Your task to perform on an android device: Open Yahoo.com Image 0: 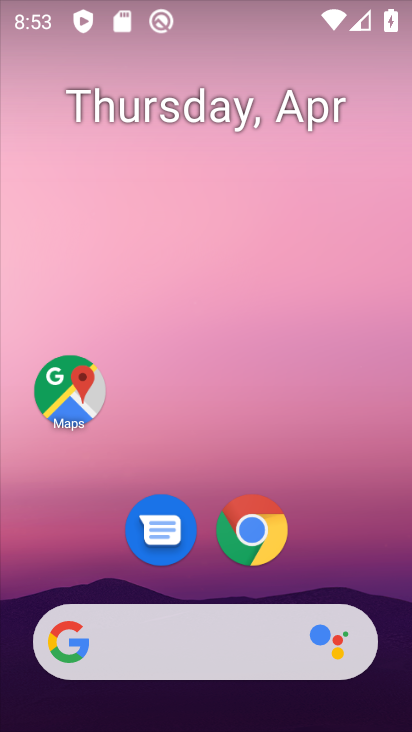
Step 0: drag from (358, 552) to (338, 60)
Your task to perform on an android device: Open Yahoo.com Image 1: 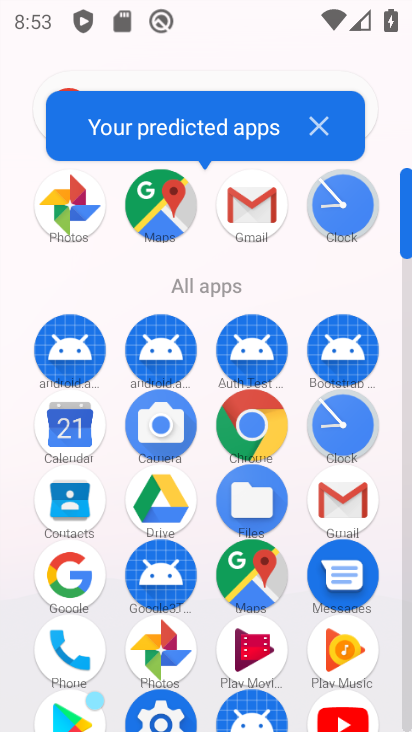
Step 1: click (273, 423)
Your task to perform on an android device: Open Yahoo.com Image 2: 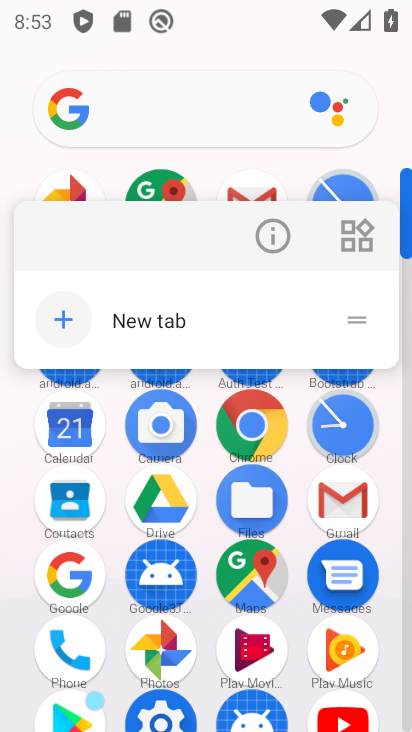
Step 2: click (269, 414)
Your task to perform on an android device: Open Yahoo.com Image 3: 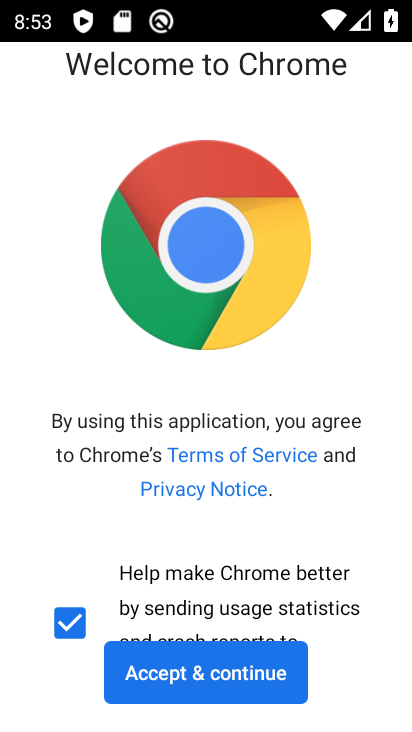
Step 3: click (231, 673)
Your task to perform on an android device: Open Yahoo.com Image 4: 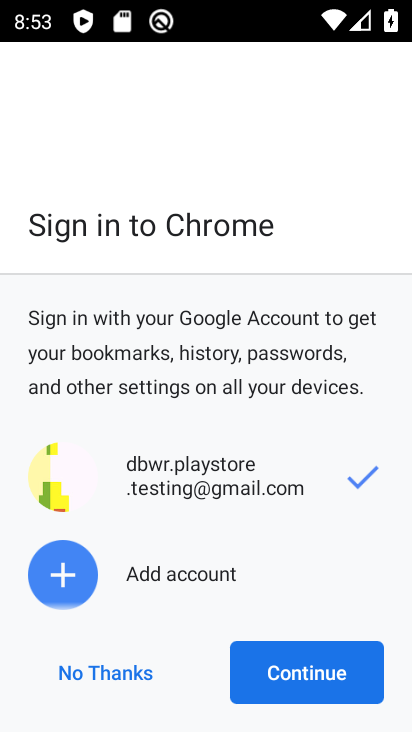
Step 4: click (296, 670)
Your task to perform on an android device: Open Yahoo.com Image 5: 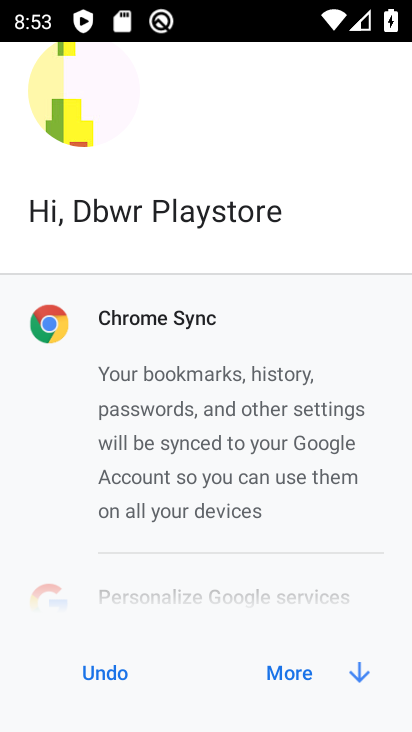
Step 5: click (328, 672)
Your task to perform on an android device: Open Yahoo.com Image 6: 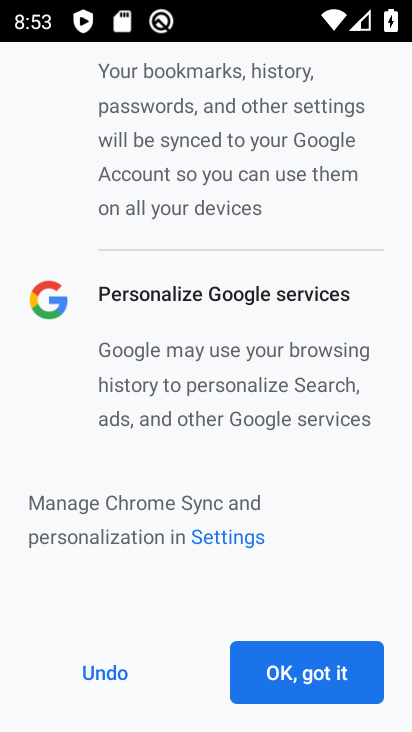
Step 6: click (319, 686)
Your task to perform on an android device: Open Yahoo.com Image 7: 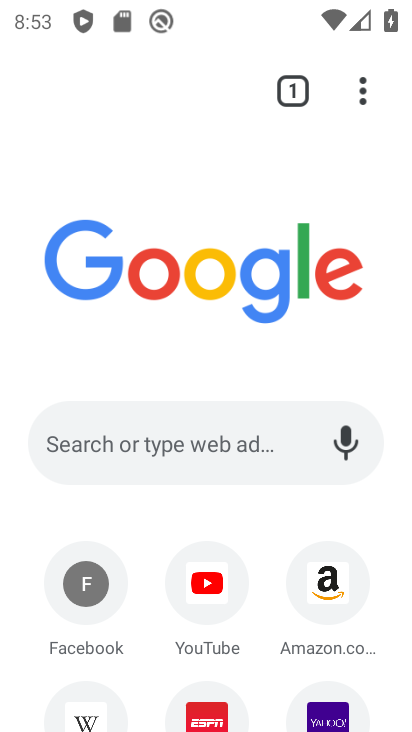
Step 7: click (164, 430)
Your task to perform on an android device: Open Yahoo.com Image 8: 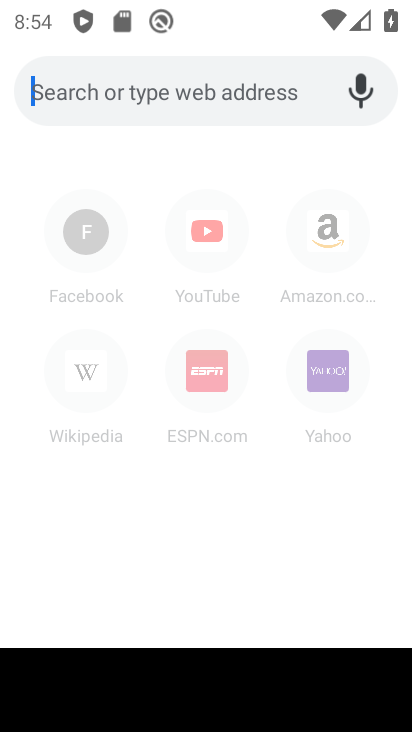
Step 8: type "Yahoo.com"
Your task to perform on an android device: Open Yahoo.com Image 9: 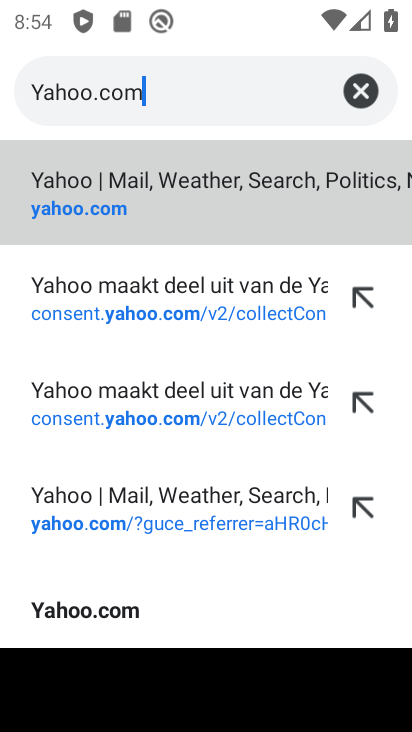
Step 9: click (109, 206)
Your task to perform on an android device: Open Yahoo.com Image 10: 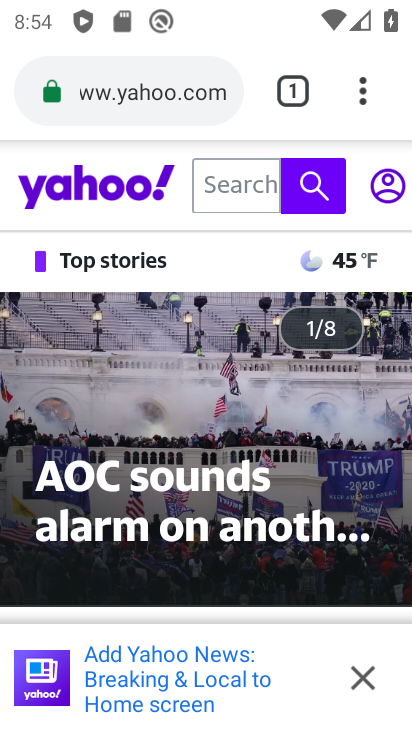
Step 10: task complete